Your task to perform on an android device: What's the weather going to be this weekend? Image 0: 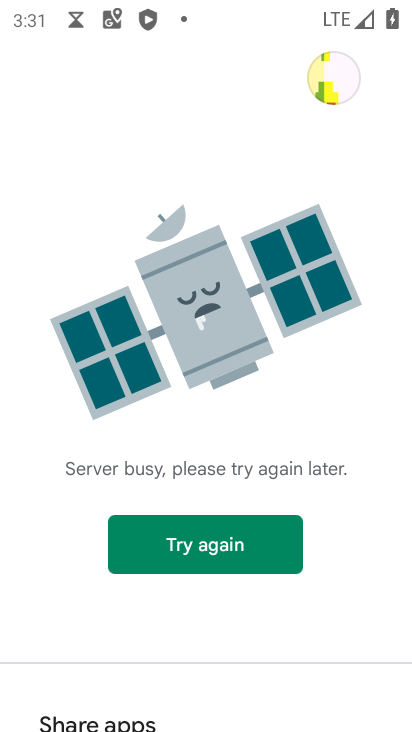
Step 0: press home button
Your task to perform on an android device: What's the weather going to be this weekend? Image 1: 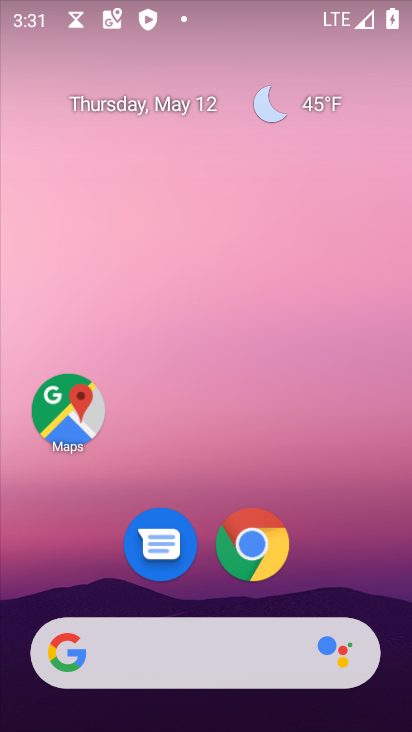
Step 1: click (173, 659)
Your task to perform on an android device: What's the weather going to be this weekend? Image 2: 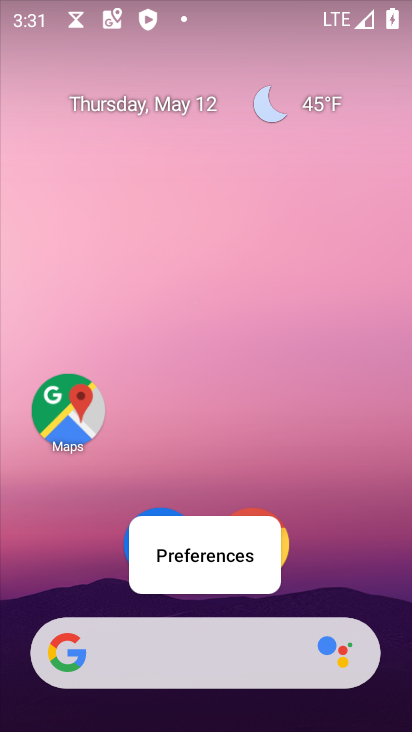
Step 2: click (174, 653)
Your task to perform on an android device: What's the weather going to be this weekend? Image 3: 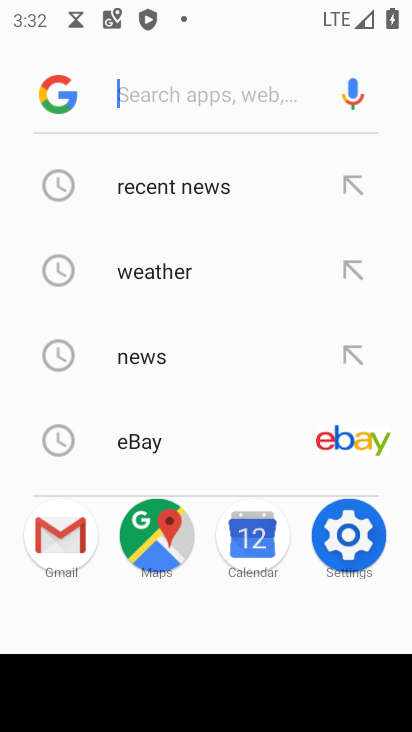
Step 3: type "what's the weather going to be this weeend"
Your task to perform on an android device: What's the weather going to be this weekend? Image 4: 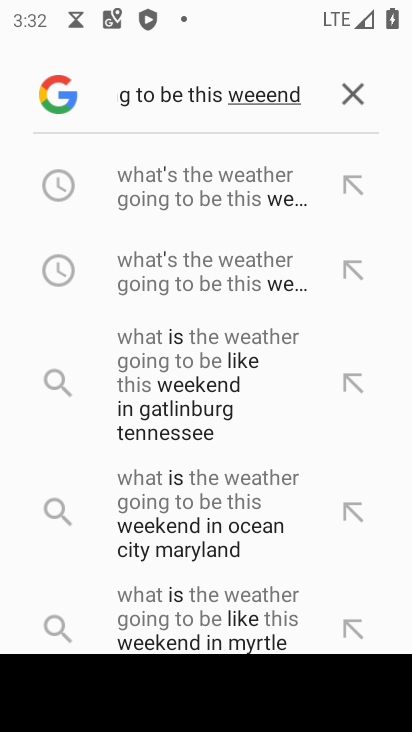
Step 4: click (167, 200)
Your task to perform on an android device: What's the weather going to be this weekend? Image 5: 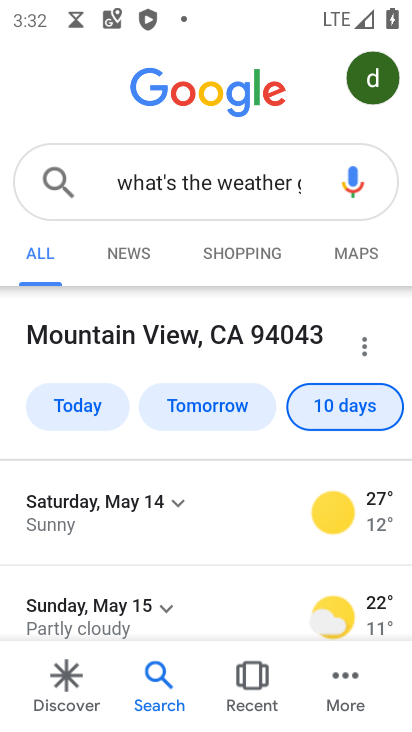
Step 5: task complete